Your task to perform on an android device: Open ESPN.com Image 0: 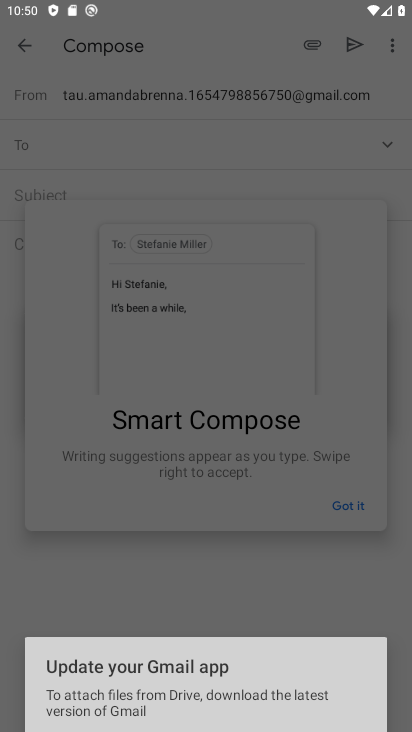
Step 0: press home button
Your task to perform on an android device: Open ESPN.com Image 1: 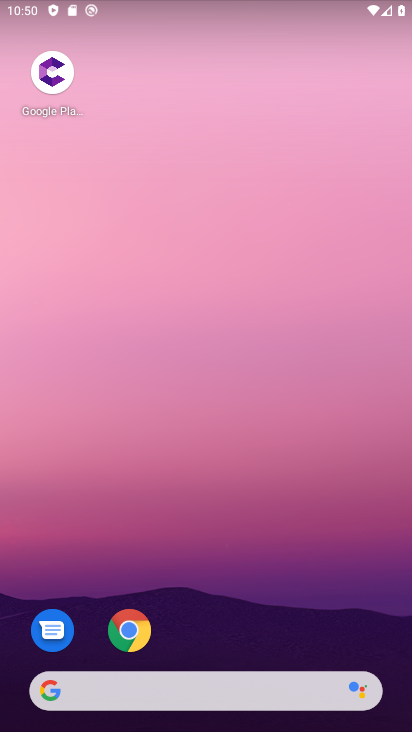
Step 1: click (133, 617)
Your task to perform on an android device: Open ESPN.com Image 2: 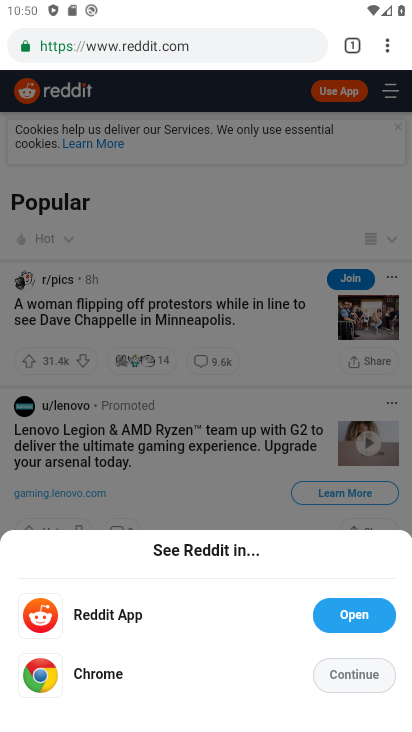
Step 2: click (137, 38)
Your task to perform on an android device: Open ESPN.com Image 3: 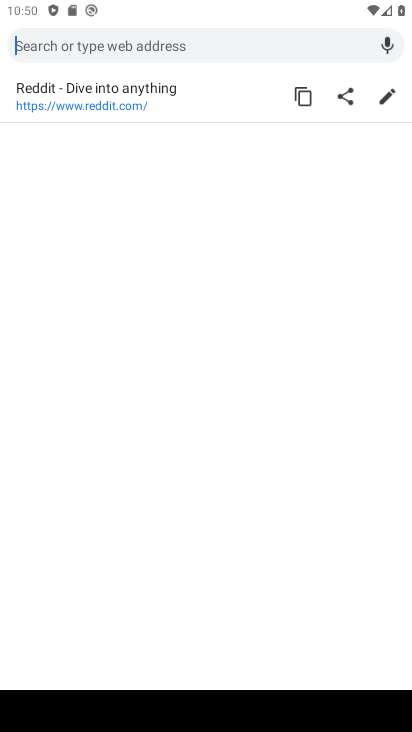
Step 3: type "ESPN.com"
Your task to perform on an android device: Open ESPN.com Image 4: 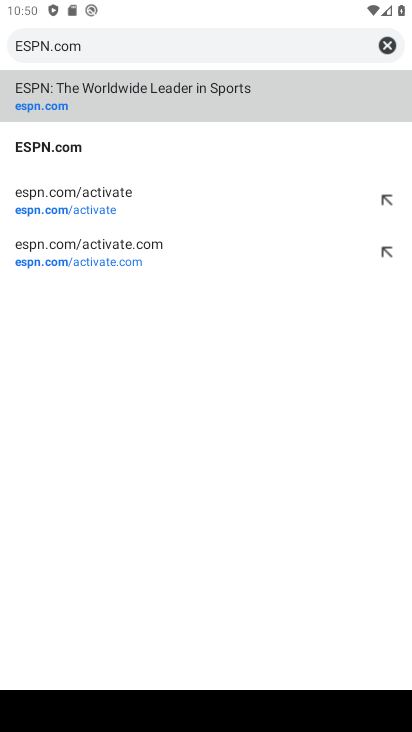
Step 4: click (163, 81)
Your task to perform on an android device: Open ESPN.com Image 5: 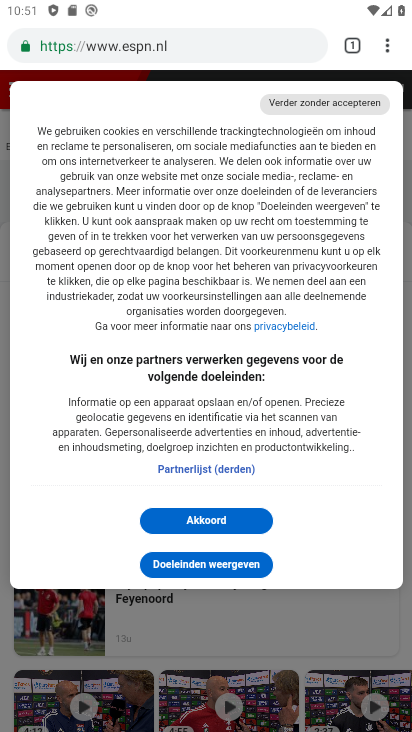
Step 5: task complete